Your task to perform on an android device: Open Google Image 0: 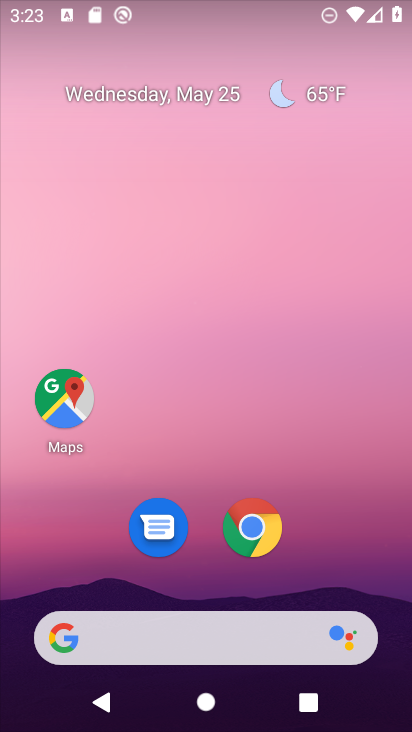
Step 0: drag from (238, 617) to (282, 89)
Your task to perform on an android device: Open Google Image 1: 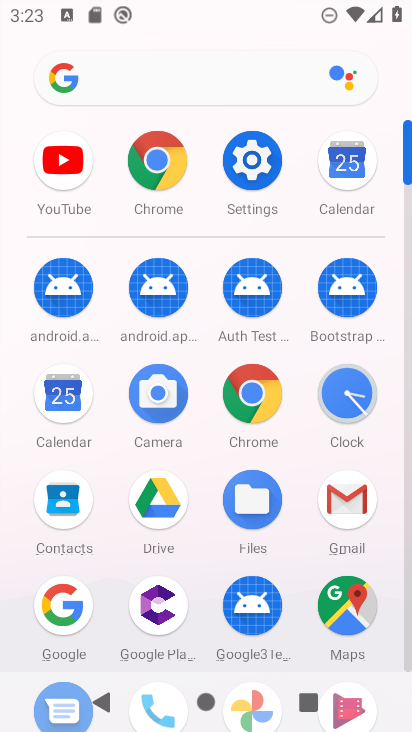
Step 1: click (269, 381)
Your task to perform on an android device: Open Google Image 2: 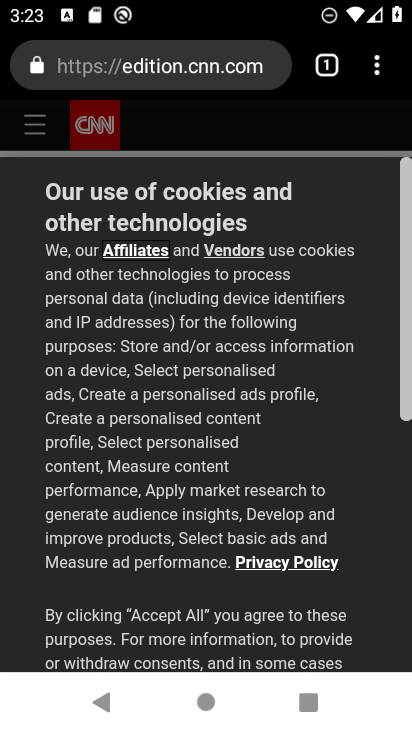
Step 2: task complete